Your task to perform on an android device: turn pop-ups on in chrome Image 0: 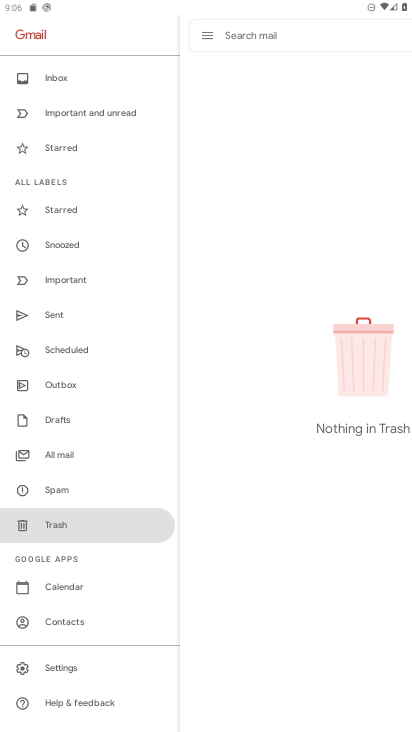
Step 0: task complete